Your task to perform on an android device: Search for sushi restaurants on Maps Image 0: 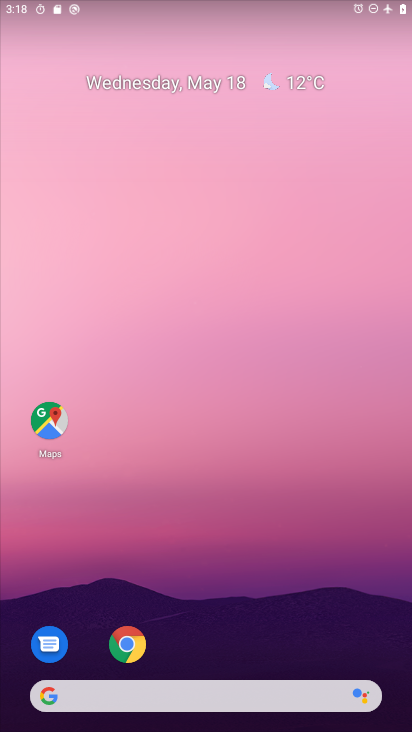
Step 0: click (55, 417)
Your task to perform on an android device: Search for sushi restaurants on Maps Image 1: 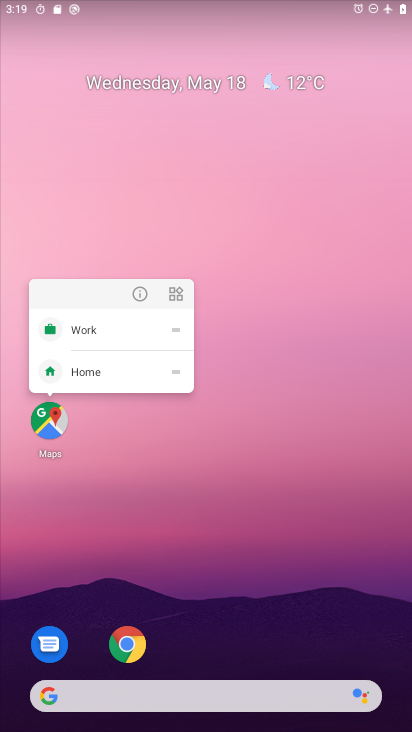
Step 1: click (38, 406)
Your task to perform on an android device: Search for sushi restaurants on Maps Image 2: 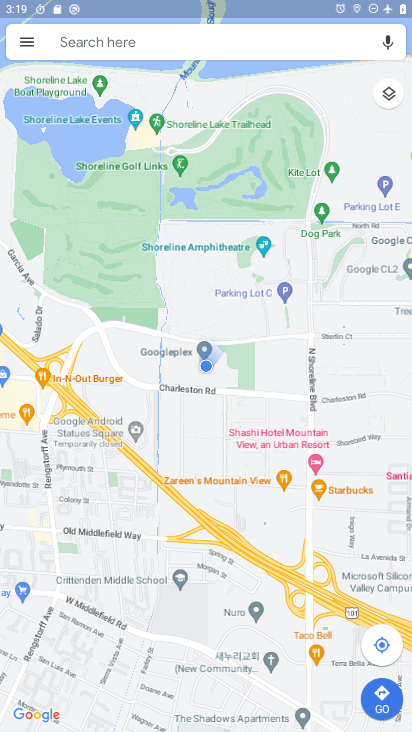
Step 2: click (105, 40)
Your task to perform on an android device: Search for sushi restaurants on Maps Image 3: 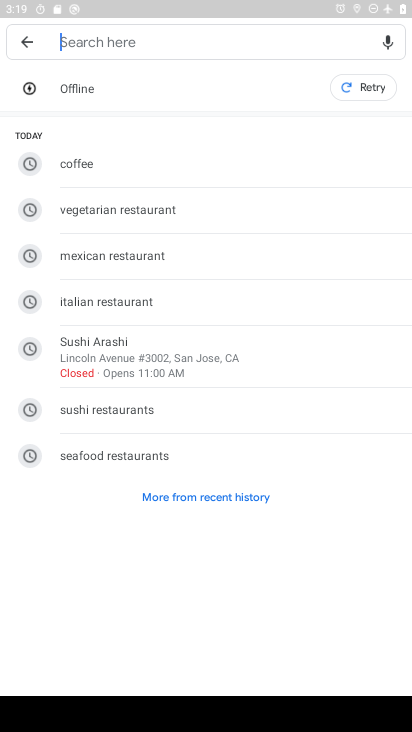
Step 3: type "sushi restaurants"
Your task to perform on an android device: Search for sushi restaurants on Maps Image 4: 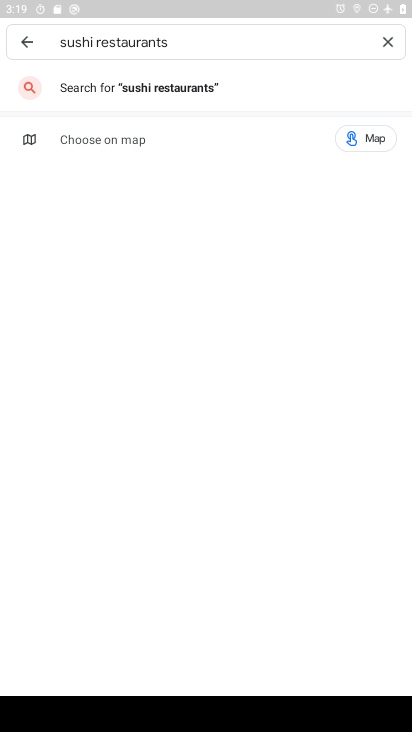
Step 4: click (132, 80)
Your task to perform on an android device: Search for sushi restaurants on Maps Image 5: 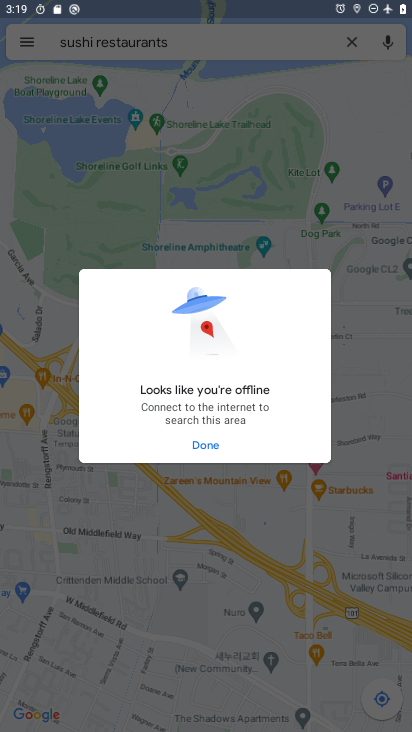
Step 5: task complete